Your task to perform on an android device: turn off sleep mode Image 0: 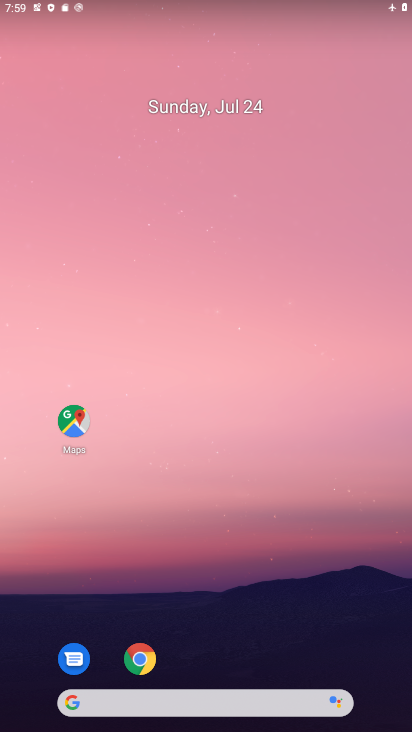
Step 0: drag from (205, 720) to (210, 141)
Your task to perform on an android device: turn off sleep mode Image 1: 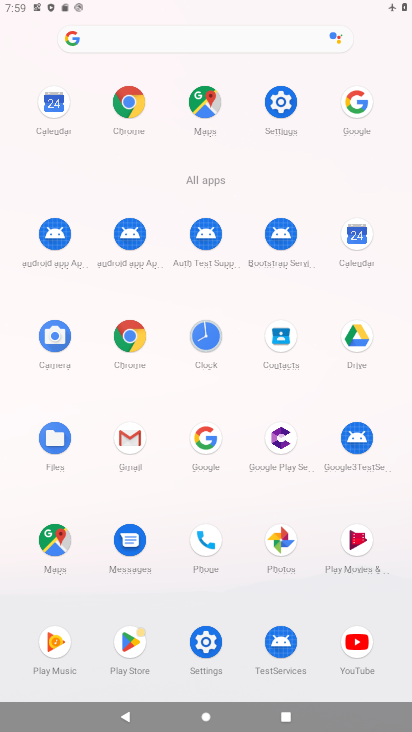
Step 1: click (276, 99)
Your task to perform on an android device: turn off sleep mode Image 2: 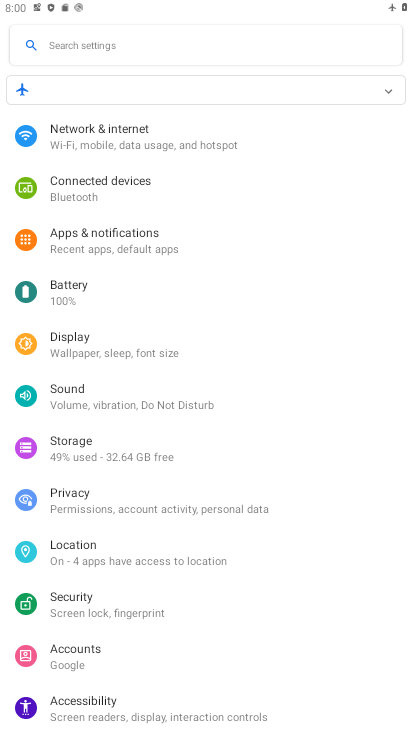
Step 2: click (113, 131)
Your task to perform on an android device: turn off sleep mode Image 3: 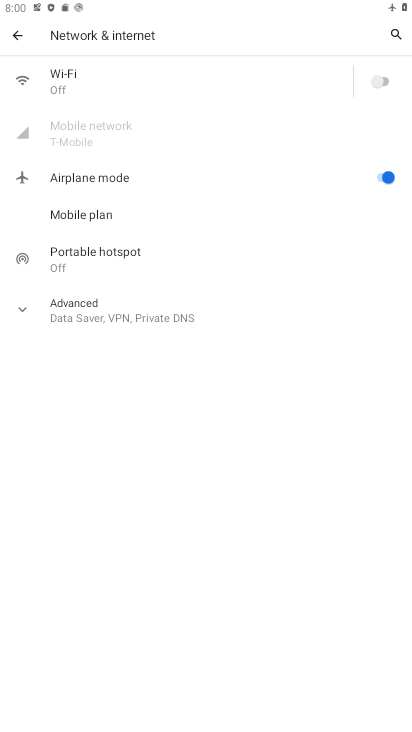
Step 3: click (20, 36)
Your task to perform on an android device: turn off sleep mode Image 4: 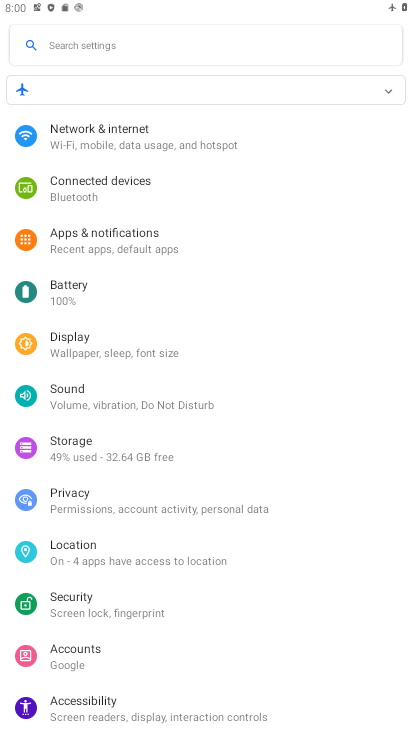
Step 4: click (77, 348)
Your task to perform on an android device: turn off sleep mode Image 5: 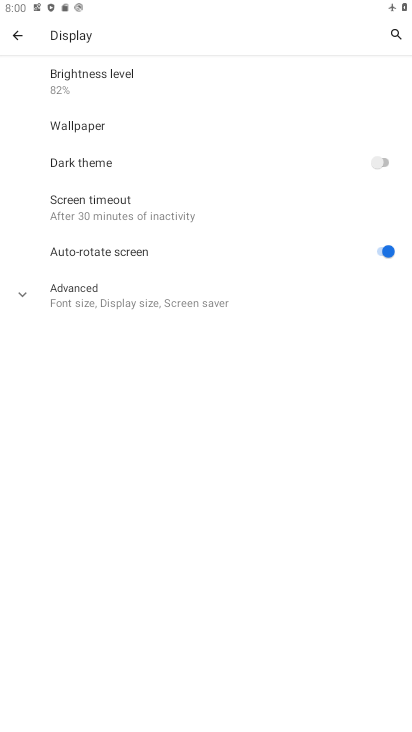
Step 5: task complete